Your task to perform on an android device: turn off notifications in google photos Image 0: 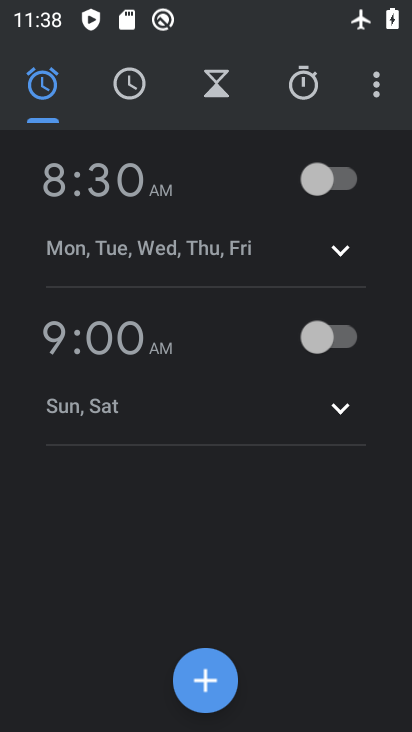
Step 0: press home button
Your task to perform on an android device: turn off notifications in google photos Image 1: 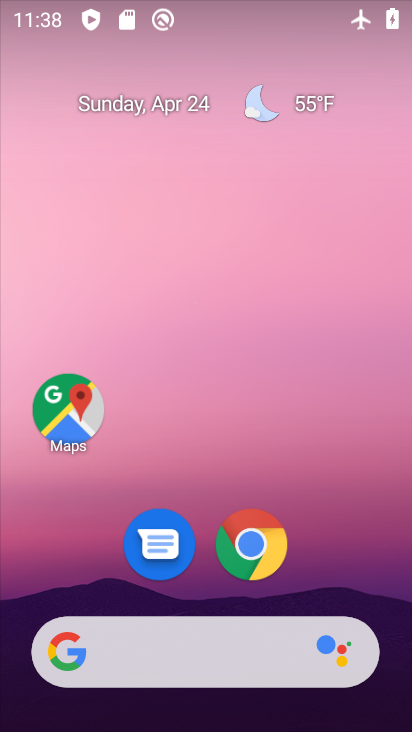
Step 1: drag from (273, 430) to (126, 102)
Your task to perform on an android device: turn off notifications in google photos Image 2: 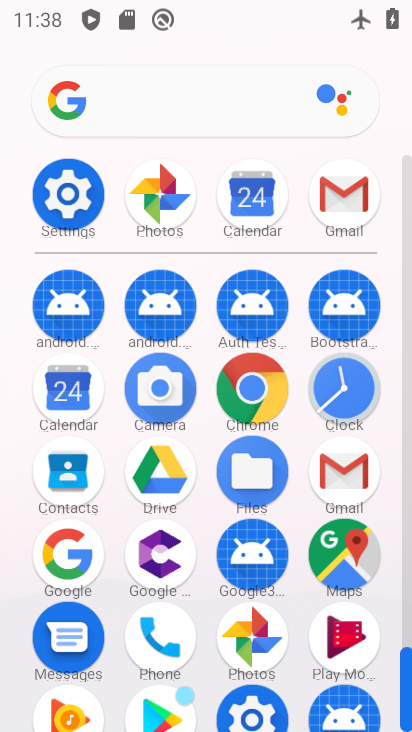
Step 2: click (134, 176)
Your task to perform on an android device: turn off notifications in google photos Image 3: 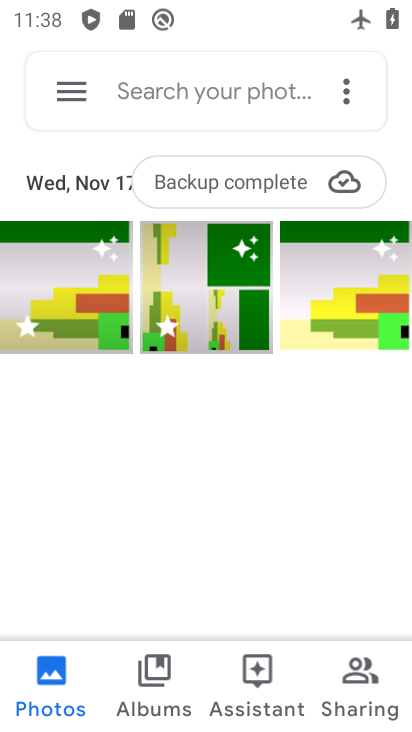
Step 3: click (67, 83)
Your task to perform on an android device: turn off notifications in google photos Image 4: 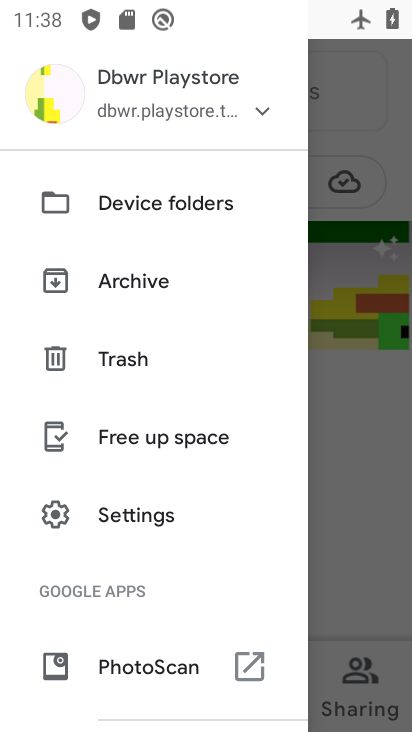
Step 4: click (118, 508)
Your task to perform on an android device: turn off notifications in google photos Image 5: 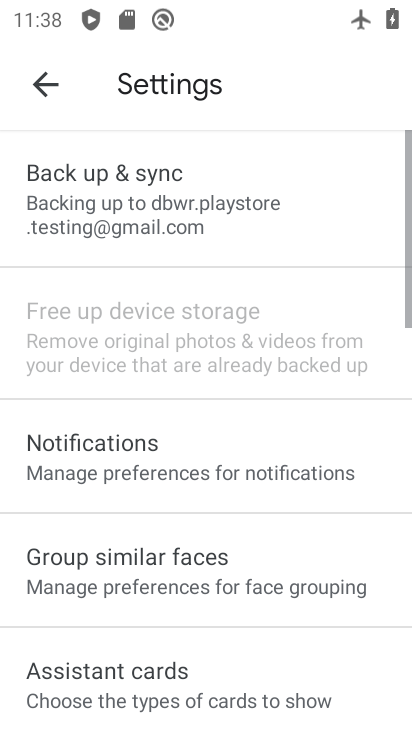
Step 5: click (138, 458)
Your task to perform on an android device: turn off notifications in google photos Image 6: 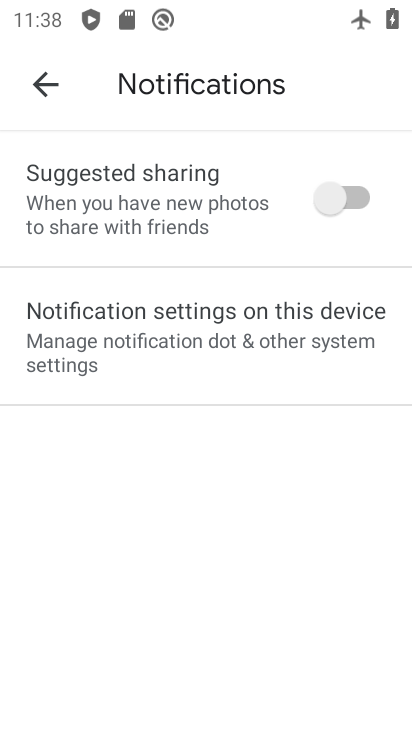
Step 6: click (140, 352)
Your task to perform on an android device: turn off notifications in google photos Image 7: 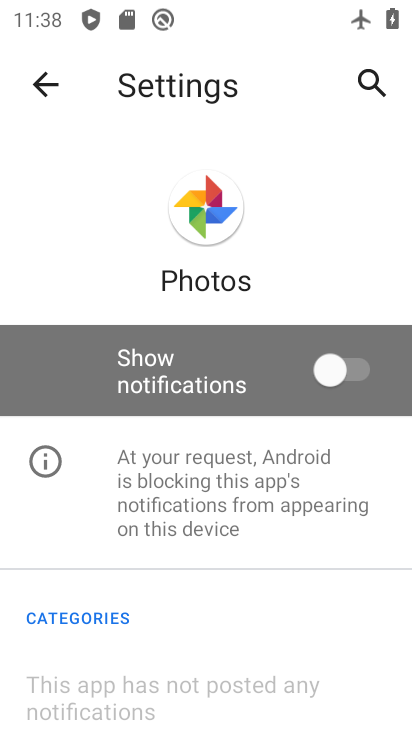
Step 7: task complete